Your task to perform on an android device: change keyboard looks Image 0: 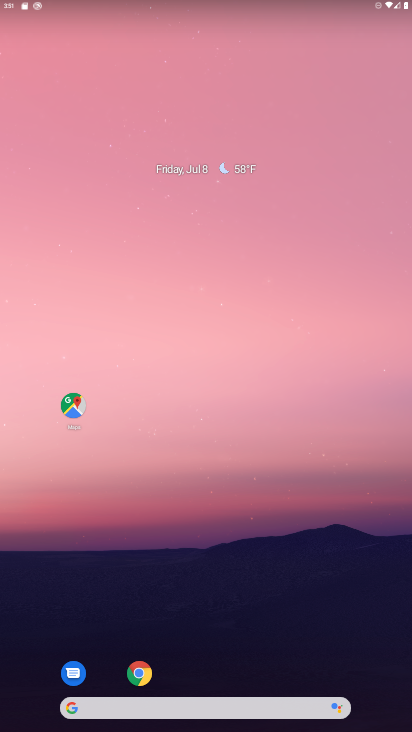
Step 0: drag from (160, 697) to (160, 549)
Your task to perform on an android device: change keyboard looks Image 1: 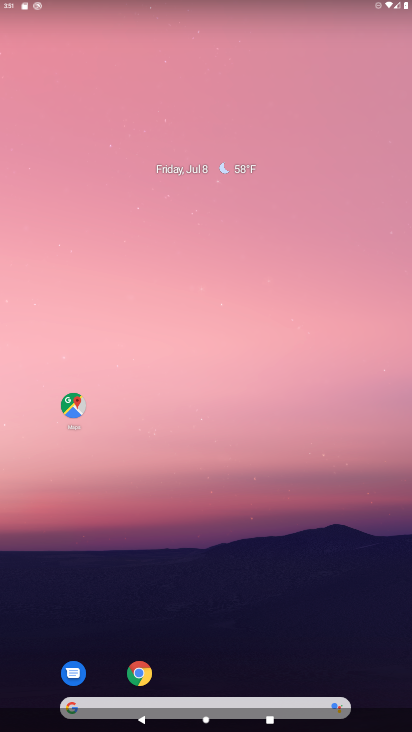
Step 1: drag from (195, 678) to (223, 272)
Your task to perform on an android device: change keyboard looks Image 2: 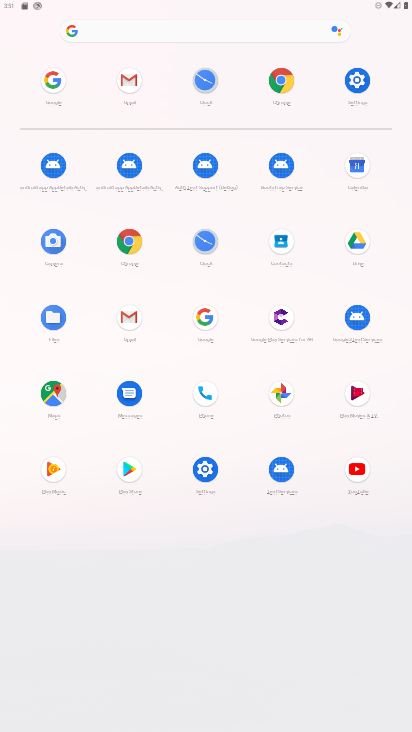
Step 2: click (199, 473)
Your task to perform on an android device: change keyboard looks Image 3: 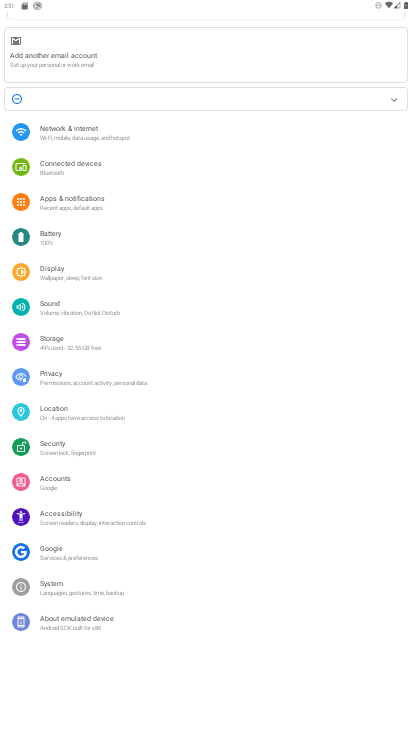
Step 3: click (60, 590)
Your task to perform on an android device: change keyboard looks Image 4: 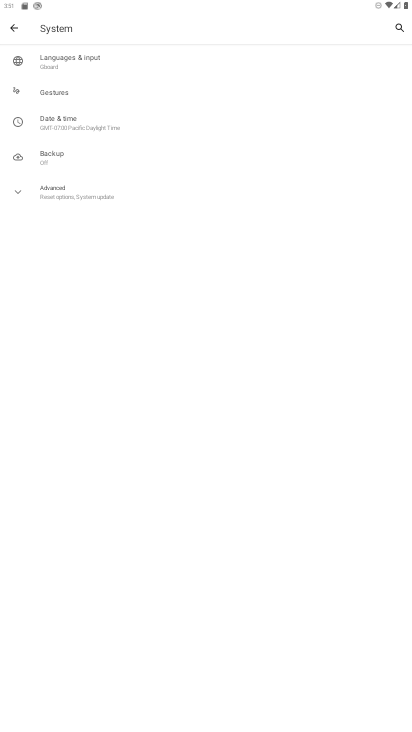
Step 4: click (45, 72)
Your task to perform on an android device: change keyboard looks Image 5: 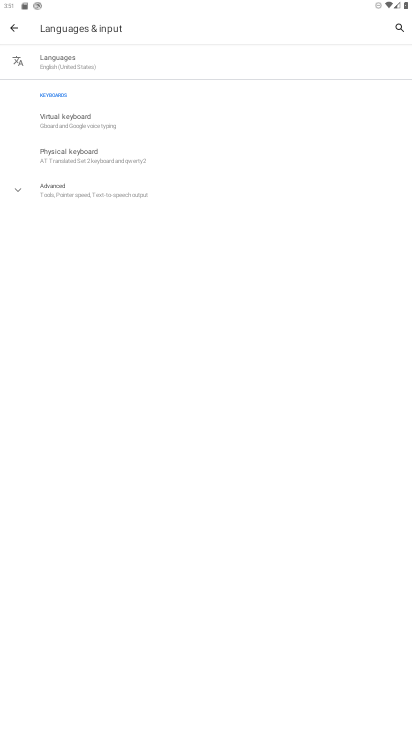
Step 5: click (62, 122)
Your task to perform on an android device: change keyboard looks Image 6: 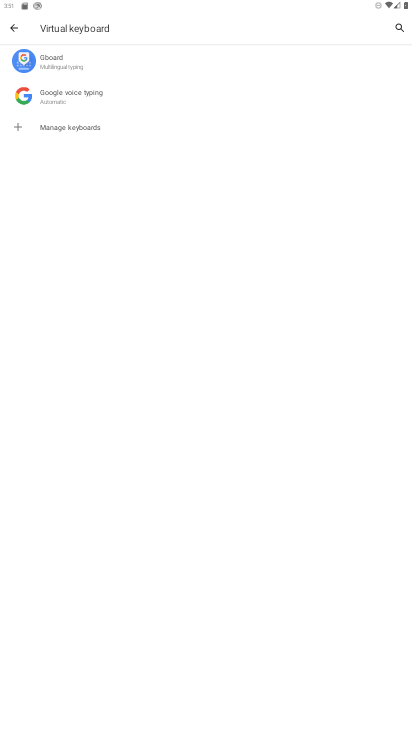
Step 6: click (62, 68)
Your task to perform on an android device: change keyboard looks Image 7: 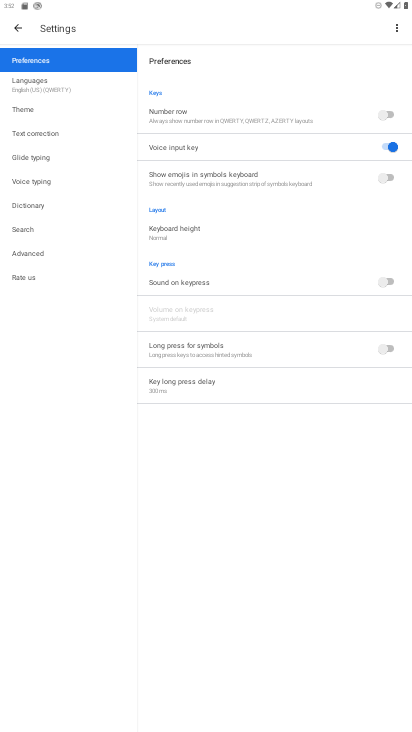
Step 7: click (26, 108)
Your task to perform on an android device: change keyboard looks Image 8: 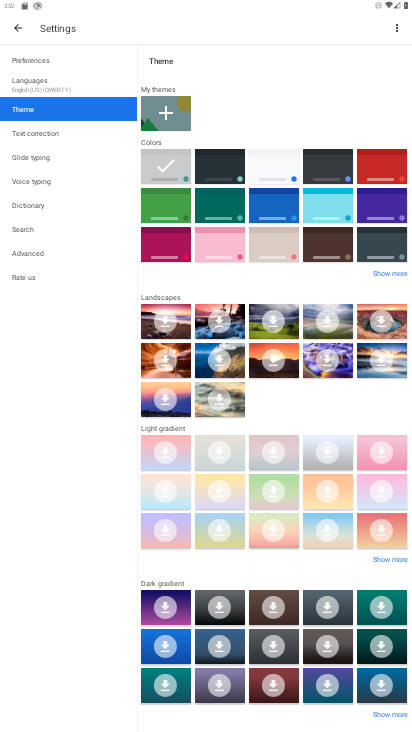
Step 8: click (226, 166)
Your task to perform on an android device: change keyboard looks Image 9: 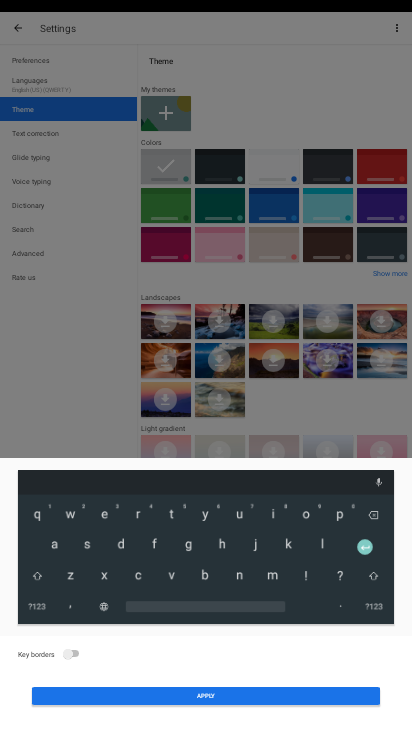
Step 9: click (208, 700)
Your task to perform on an android device: change keyboard looks Image 10: 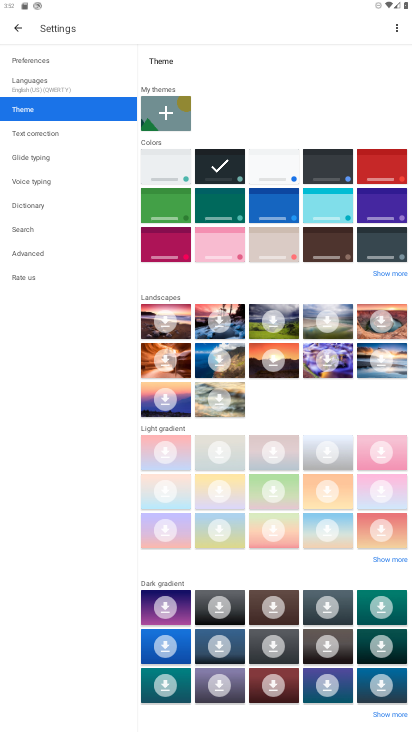
Step 10: task complete